Your task to perform on an android device: Is it going to rain this weekend? Image 0: 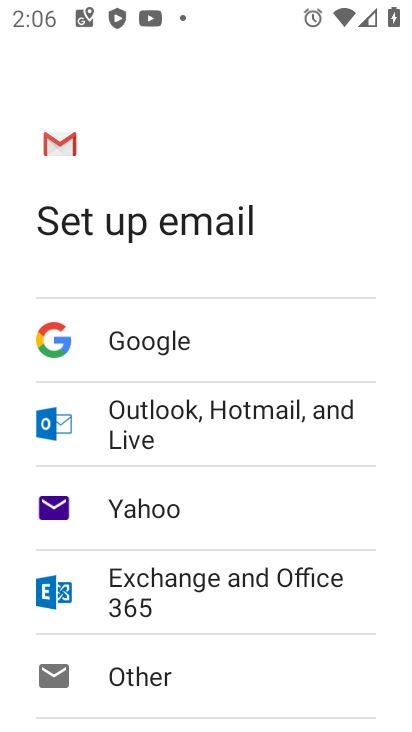
Step 0: press home button
Your task to perform on an android device: Is it going to rain this weekend? Image 1: 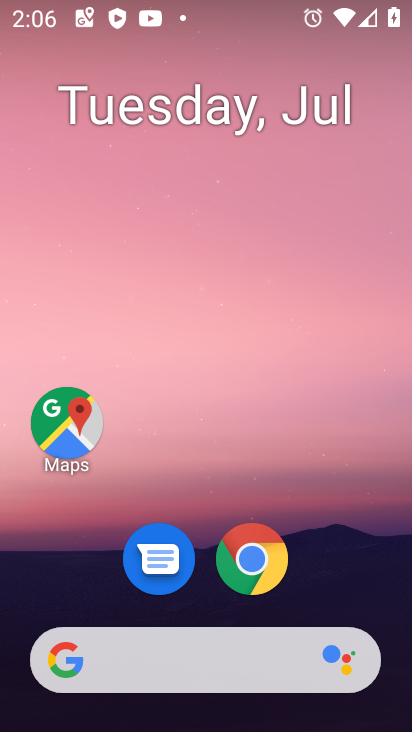
Step 1: click (269, 660)
Your task to perform on an android device: Is it going to rain this weekend? Image 2: 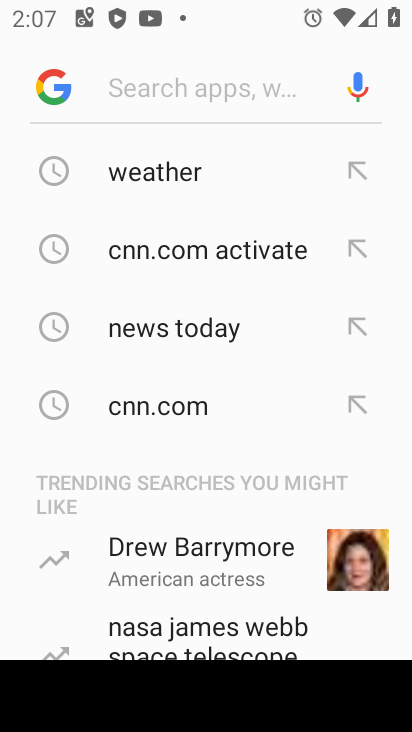
Step 2: click (180, 176)
Your task to perform on an android device: Is it going to rain this weekend? Image 3: 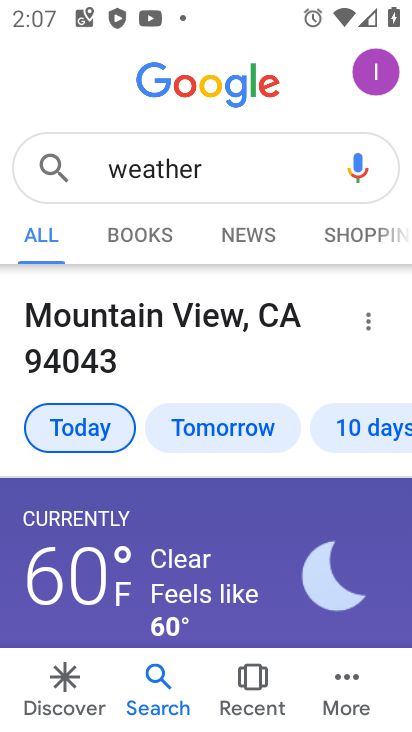
Step 3: click (370, 437)
Your task to perform on an android device: Is it going to rain this weekend? Image 4: 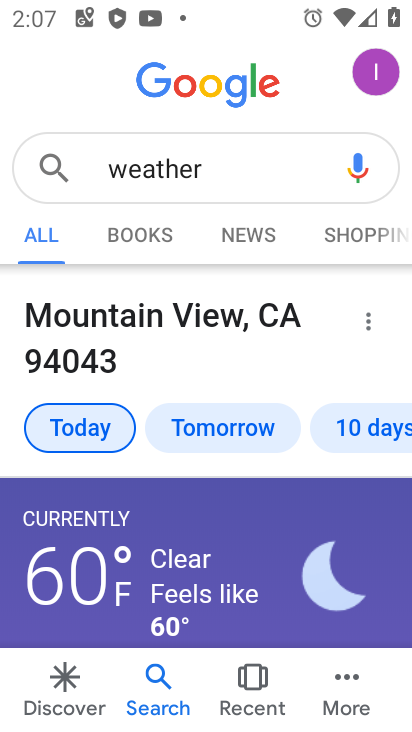
Step 4: click (357, 418)
Your task to perform on an android device: Is it going to rain this weekend? Image 5: 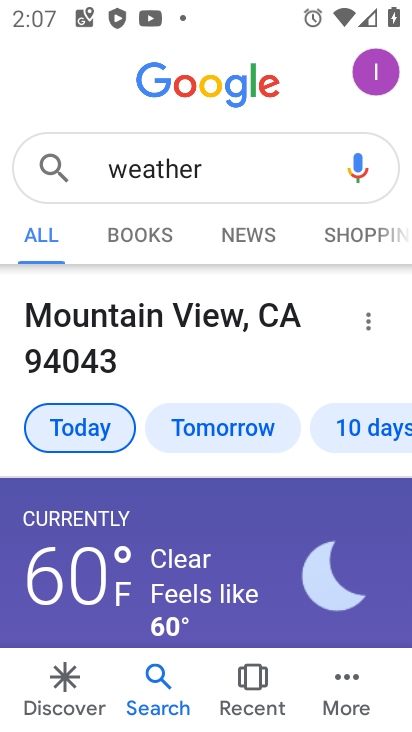
Step 5: click (366, 424)
Your task to perform on an android device: Is it going to rain this weekend? Image 6: 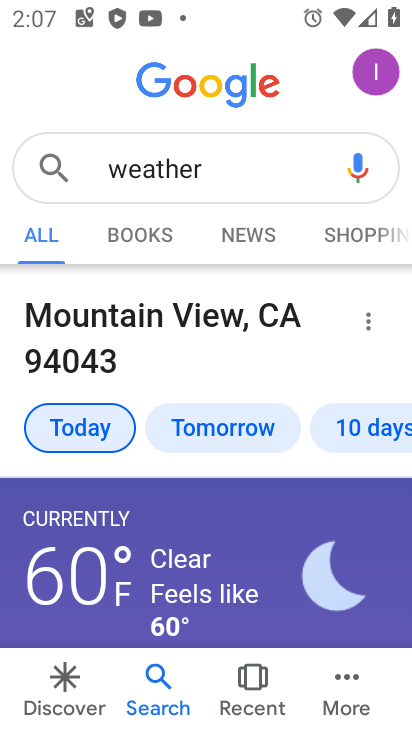
Step 6: click (368, 424)
Your task to perform on an android device: Is it going to rain this weekend? Image 7: 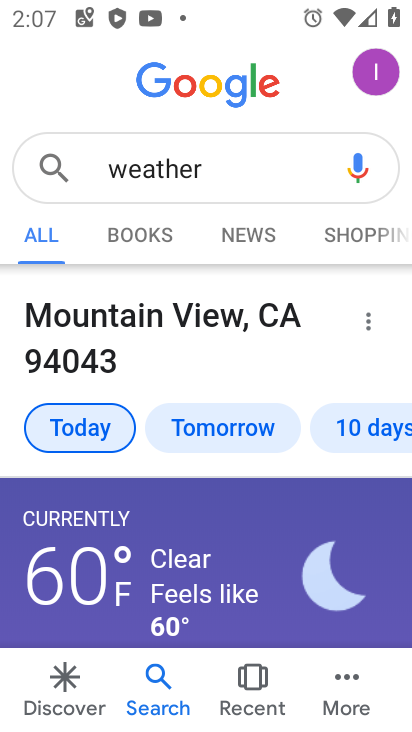
Step 7: task complete